Your task to perform on an android device: Do I have any events tomorrow? Image 0: 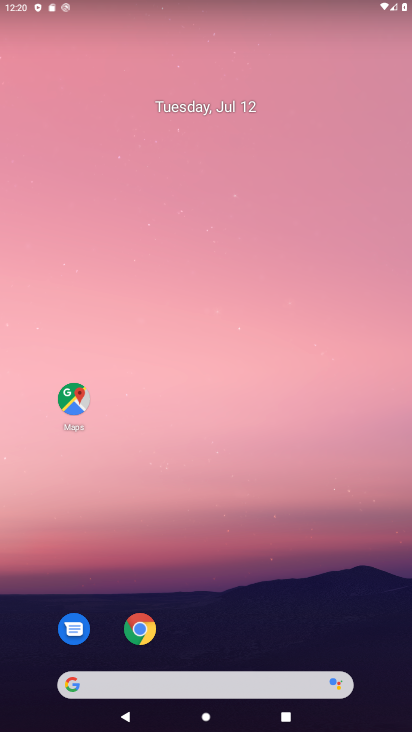
Step 0: drag from (216, 691) to (233, 126)
Your task to perform on an android device: Do I have any events tomorrow? Image 1: 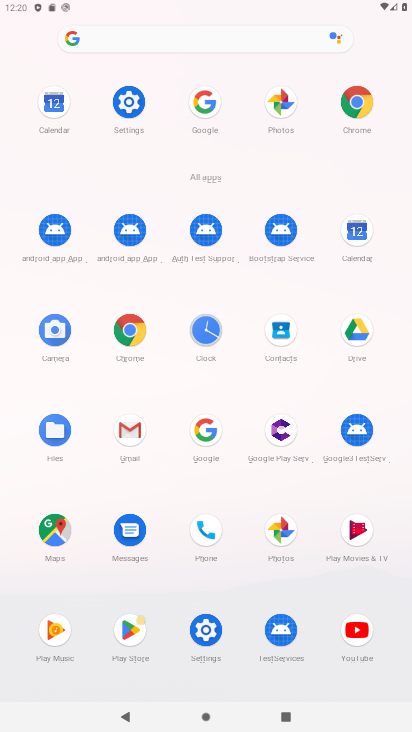
Step 1: click (364, 240)
Your task to perform on an android device: Do I have any events tomorrow? Image 2: 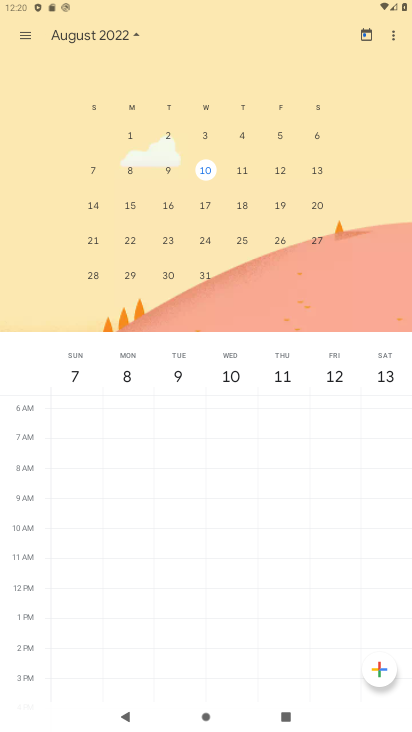
Step 2: drag from (94, 191) to (401, 183)
Your task to perform on an android device: Do I have any events tomorrow? Image 3: 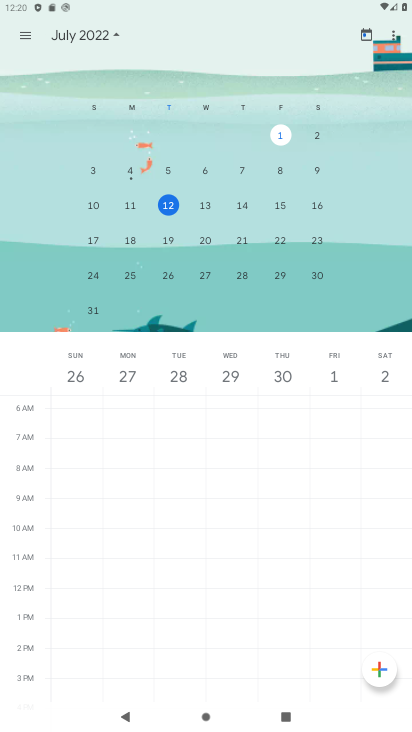
Step 3: click (174, 205)
Your task to perform on an android device: Do I have any events tomorrow? Image 4: 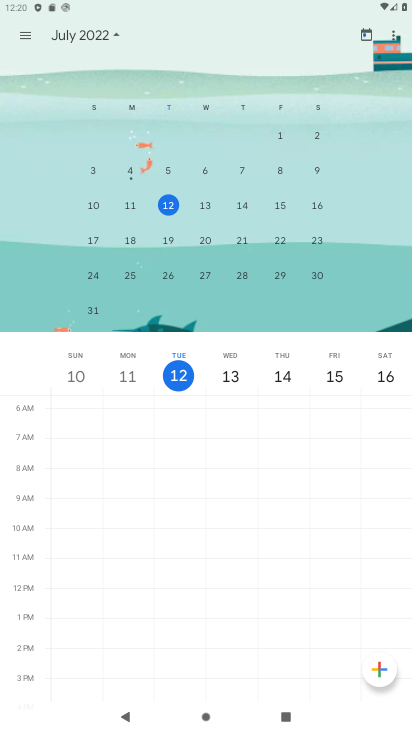
Step 4: click (197, 202)
Your task to perform on an android device: Do I have any events tomorrow? Image 5: 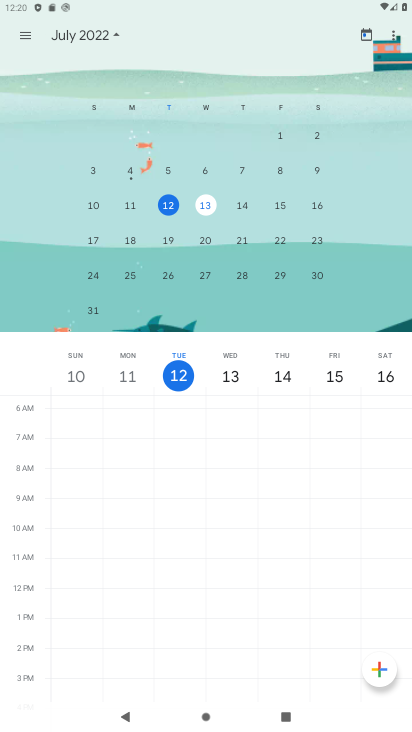
Step 5: task complete